Your task to perform on an android device: toggle translation in the chrome app Image 0: 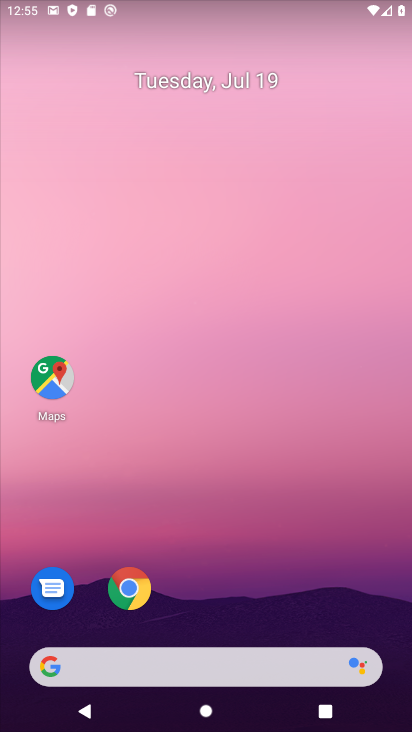
Step 0: click (124, 581)
Your task to perform on an android device: toggle translation in the chrome app Image 1: 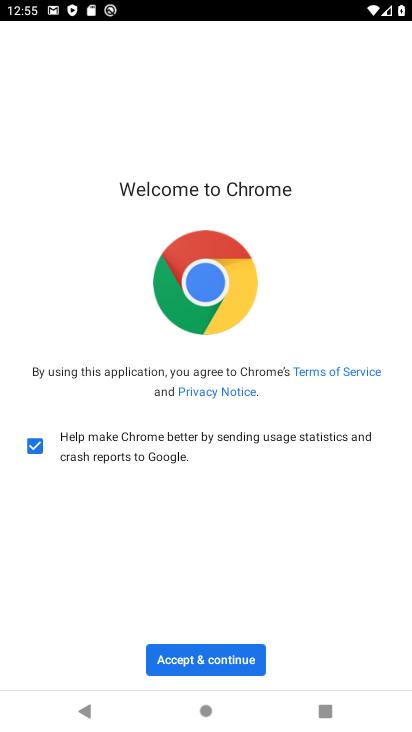
Step 1: click (214, 662)
Your task to perform on an android device: toggle translation in the chrome app Image 2: 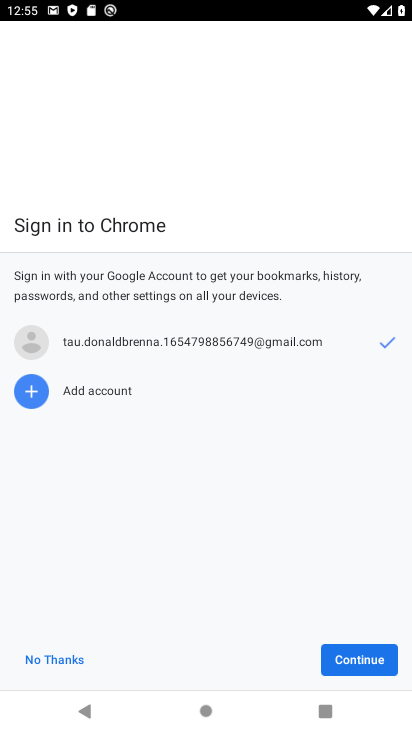
Step 2: click (378, 662)
Your task to perform on an android device: toggle translation in the chrome app Image 3: 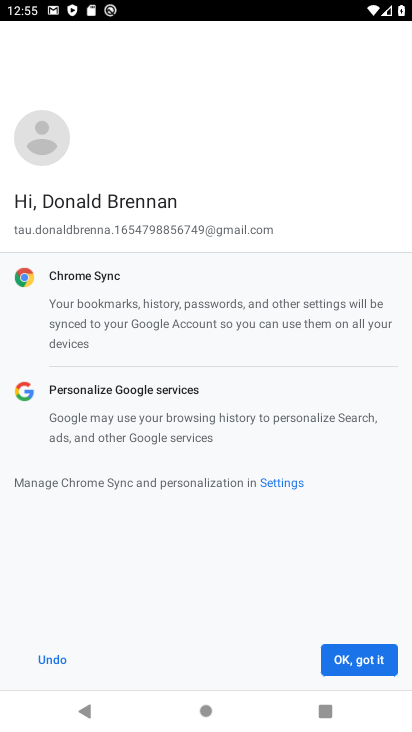
Step 3: click (377, 663)
Your task to perform on an android device: toggle translation in the chrome app Image 4: 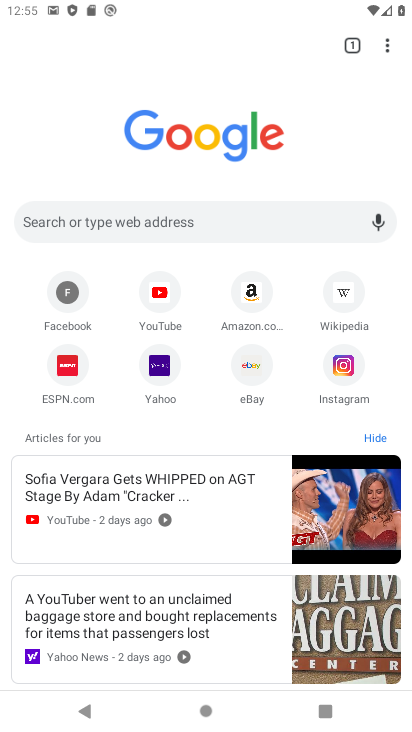
Step 4: click (391, 43)
Your task to perform on an android device: toggle translation in the chrome app Image 5: 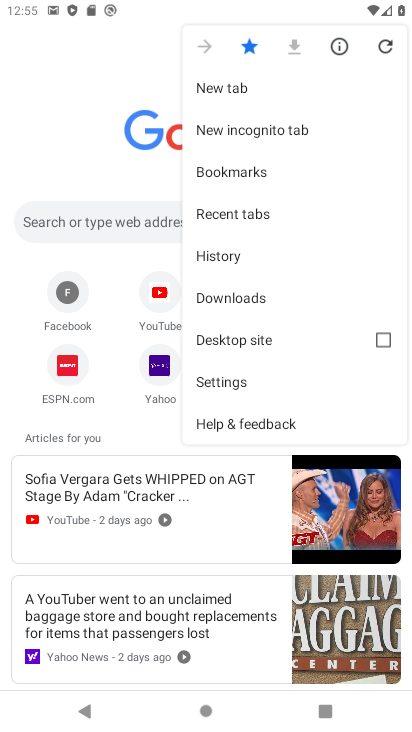
Step 5: click (211, 387)
Your task to perform on an android device: toggle translation in the chrome app Image 6: 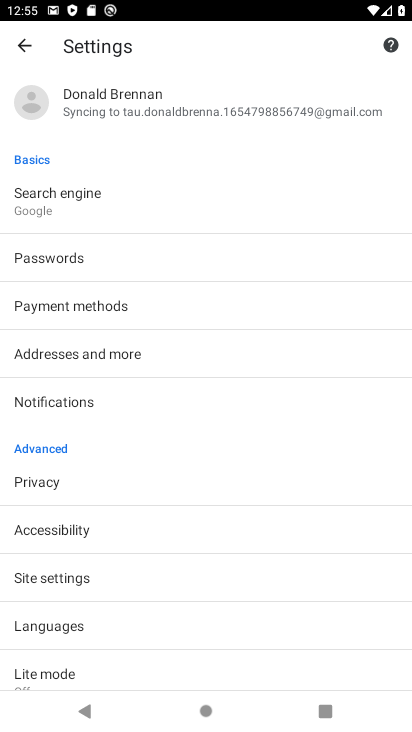
Step 6: click (69, 634)
Your task to perform on an android device: toggle translation in the chrome app Image 7: 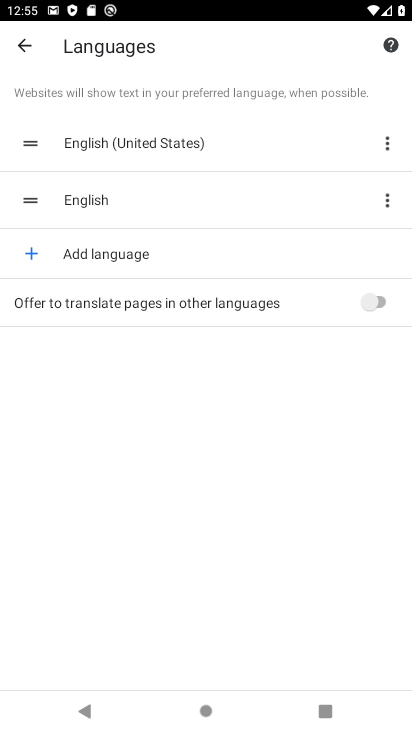
Step 7: click (377, 309)
Your task to perform on an android device: toggle translation in the chrome app Image 8: 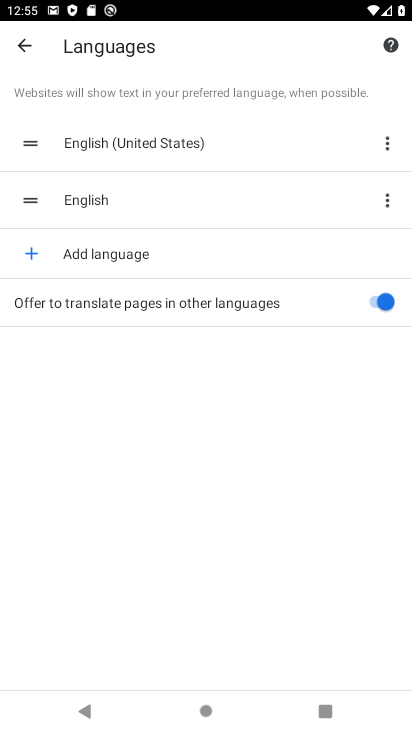
Step 8: task complete